Your task to perform on an android device: Open Android settings Image 0: 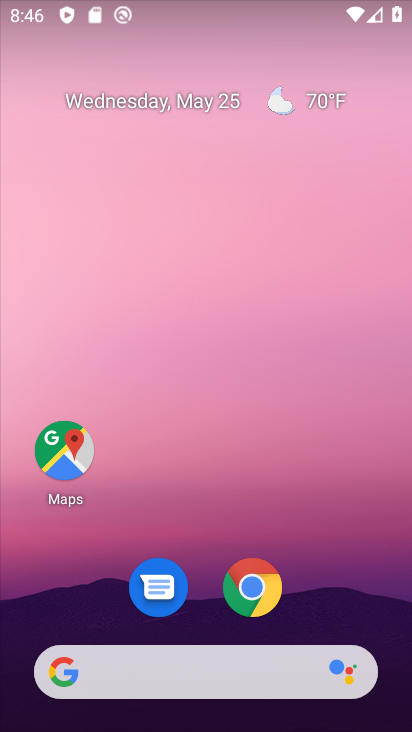
Step 0: drag from (197, 612) to (373, 322)
Your task to perform on an android device: Open Android settings Image 1: 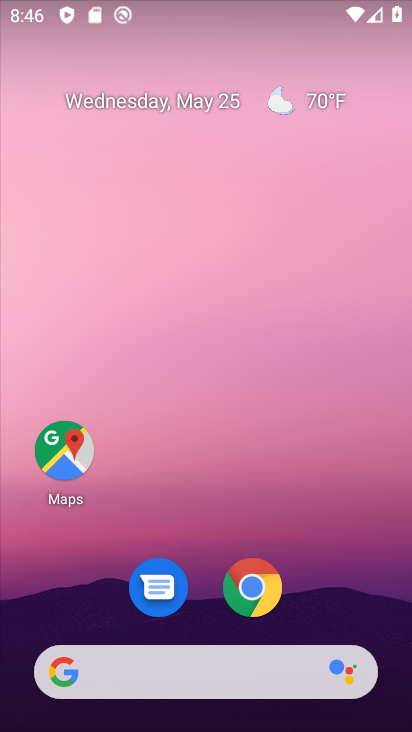
Step 1: drag from (212, 609) to (223, 167)
Your task to perform on an android device: Open Android settings Image 2: 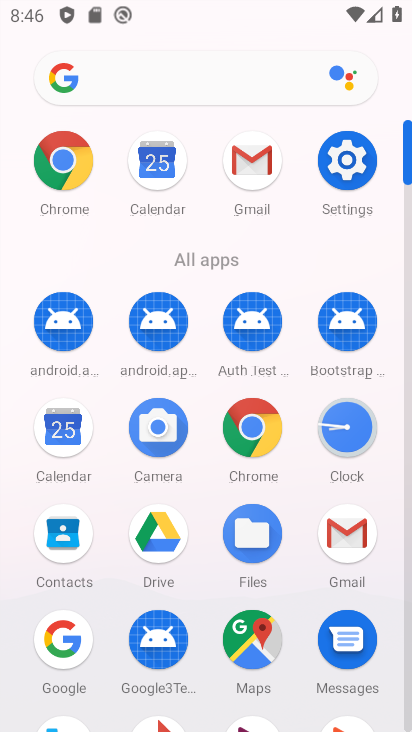
Step 2: click (354, 182)
Your task to perform on an android device: Open Android settings Image 3: 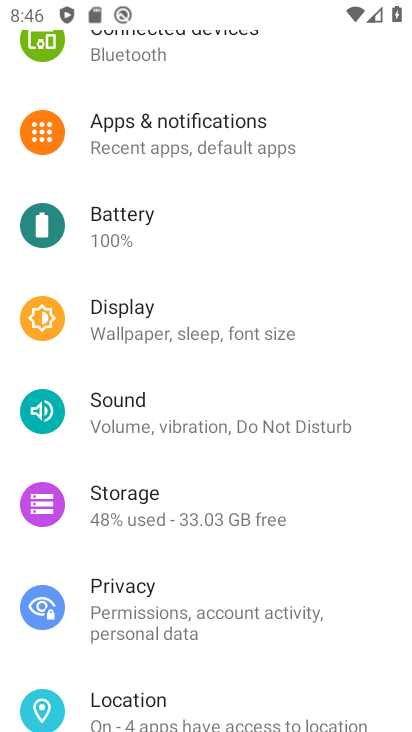
Step 3: drag from (188, 612) to (264, 60)
Your task to perform on an android device: Open Android settings Image 4: 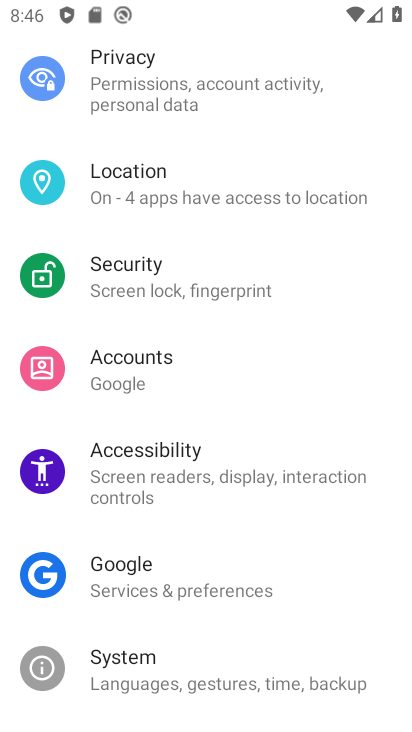
Step 4: drag from (177, 641) to (189, 462)
Your task to perform on an android device: Open Android settings Image 5: 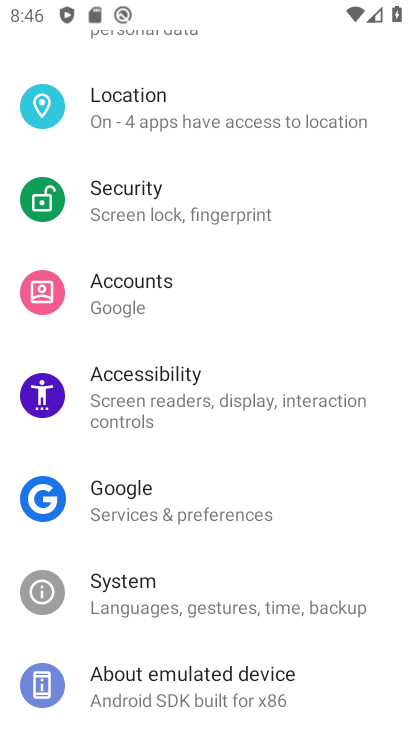
Step 5: drag from (160, 675) to (192, 410)
Your task to perform on an android device: Open Android settings Image 6: 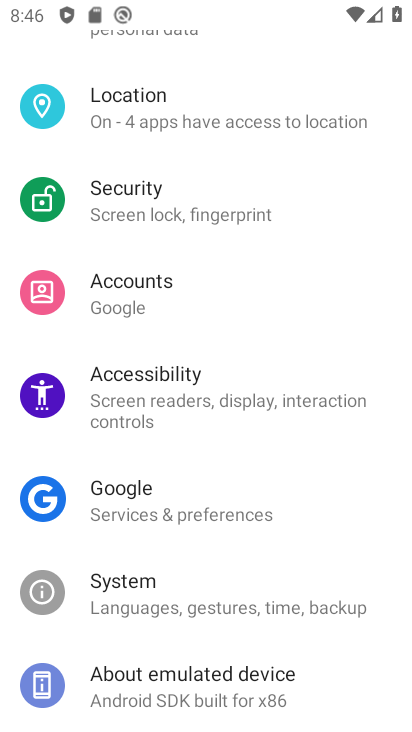
Step 6: click (136, 681)
Your task to perform on an android device: Open Android settings Image 7: 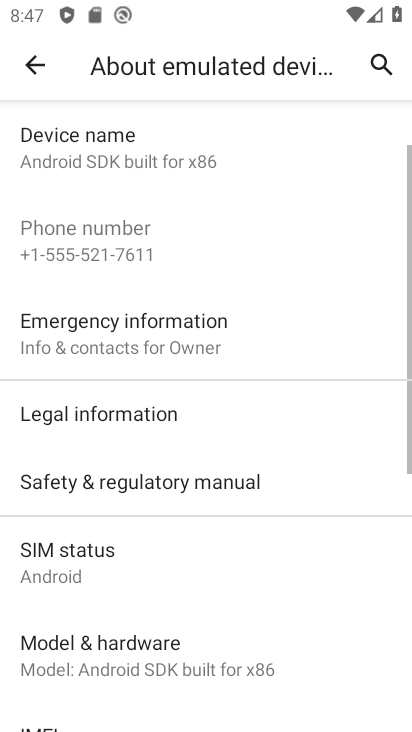
Step 7: drag from (147, 564) to (186, 145)
Your task to perform on an android device: Open Android settings Image 8: 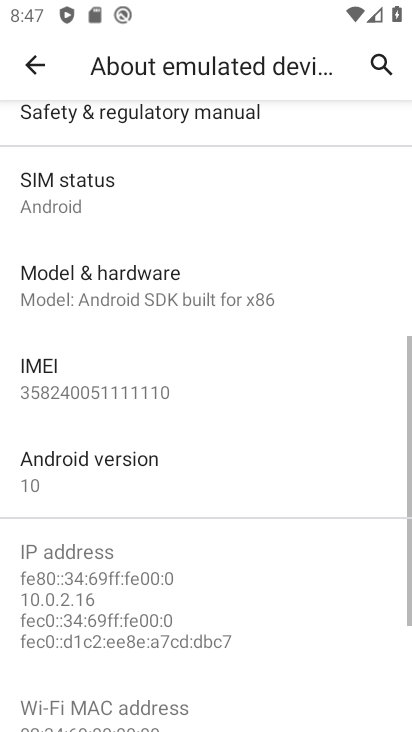
Step 8: click (110, 462)
Your task to perform on an android device: Open Android settings Image 9: 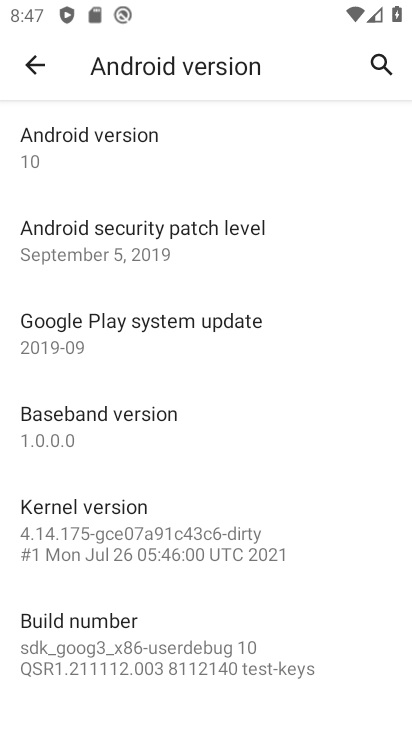
Step 9: task complete